Your task to perform on an android device: snooze an email in the gmail app Image 0: 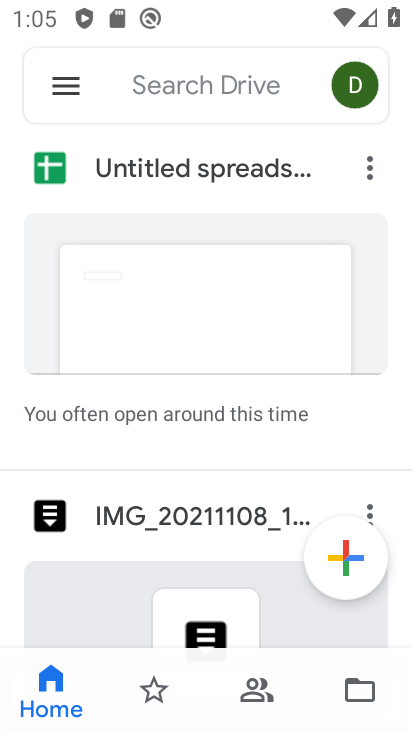
Step 0: press home button
Your task to perform on an android device: snooze an email in the gmail app Image 1: 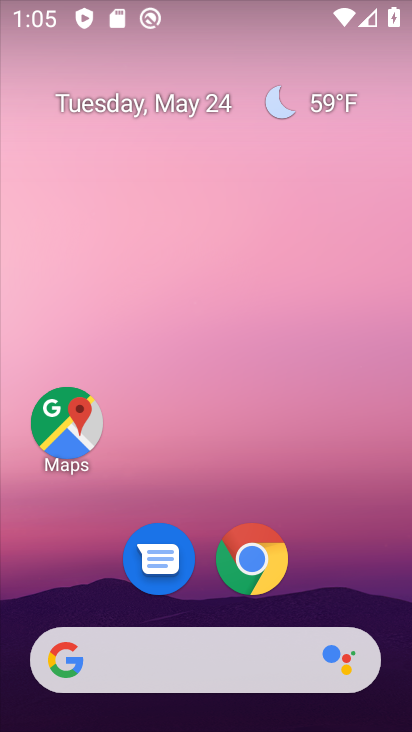
Step 1: drag from (397, 598) to (250, 107)
Your task to perform on an android device: snooze an email in the gmail app Image 2: 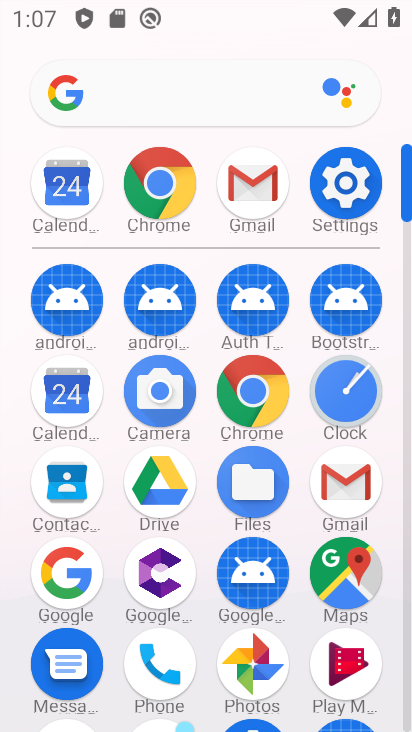
Step 2: click (360, 482)
Your task to perform on an android device: snooze an email in the gmail app Image 3: 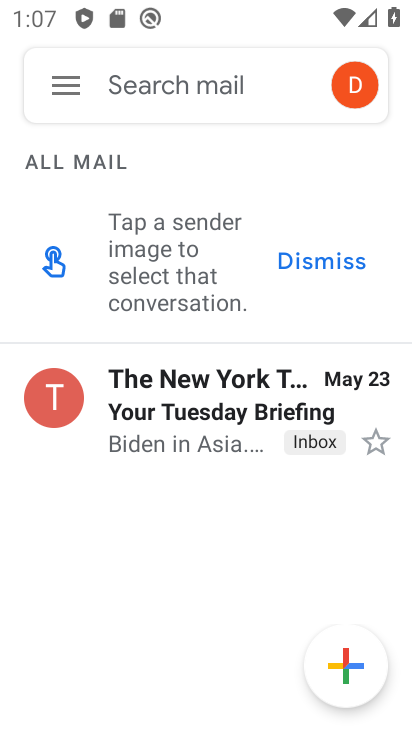
Step 3: click (54, 79)
Your task to perform on an android device: snooze an email in the gmail app Image 4: 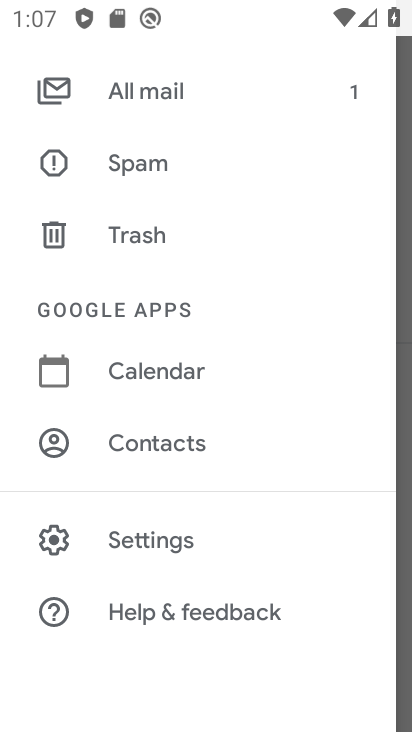
Step 4: drag from (160, 196) to (206, 641)
Your task to perform on an android device: snooze an email in the gmail app Image 5: 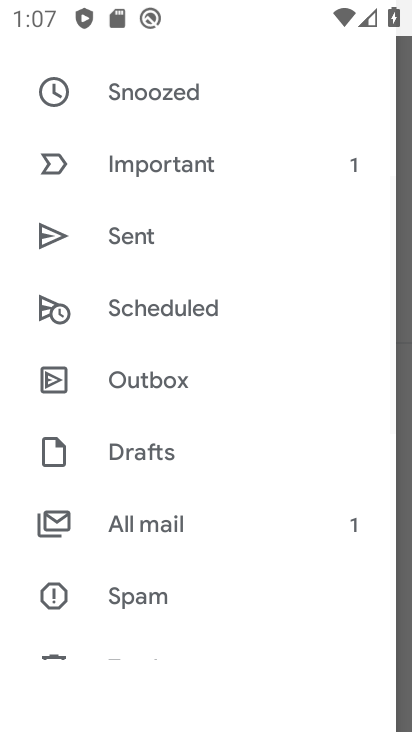
Step 5: drag from (164, 124) to (132, 573)
Your task to perform on an android device: snooze an email in the gmail app Image 6: 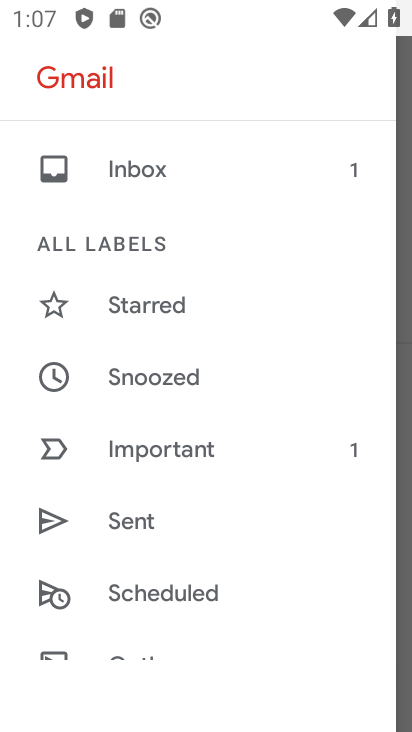
Step 6: click (197, 167)
Your task to perform on an android device: snooze an email in the gmail app Image 7: 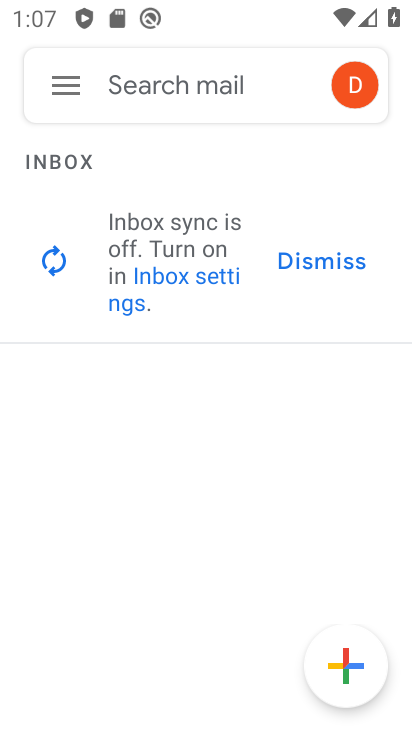
Step 7: task complete